Your task to perform on an android device: Open wifi settings Image 0: 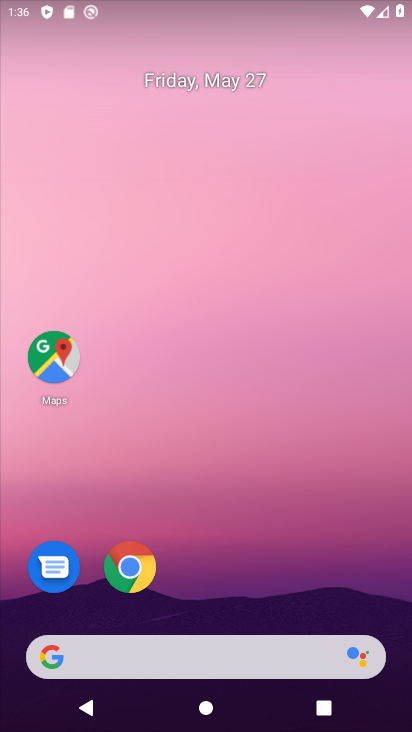
Step 0: drag from (221, 598) to (227, 104)
Your task to perform on an android device: Open wifi settings Image 1: 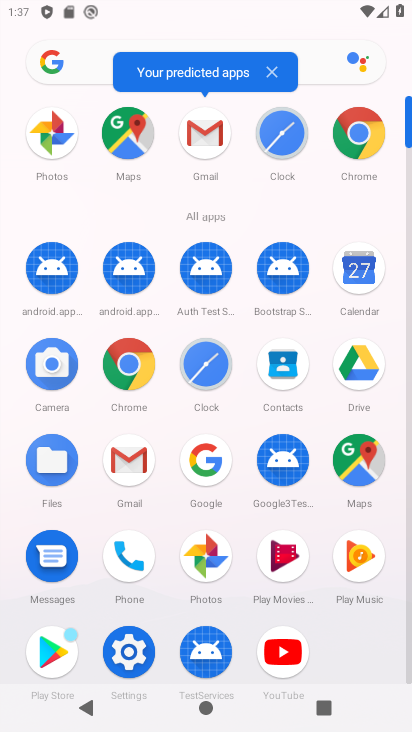
Step 1: click (134, 657)
Your task to perform on an android device: Open wifi settings Image 2: 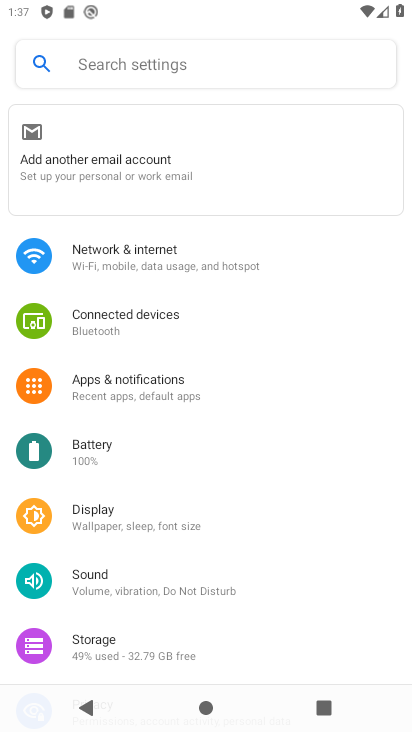
Step 2: click (77, 254)
Your task to perform on an android device: Open wifi settings Image 3: 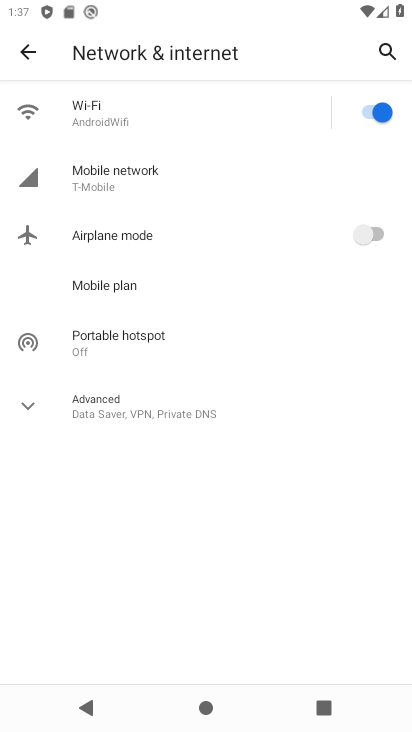
Step 3: click (79, 105)
Your task to perform on an android device: Open wifi settings Image 4: 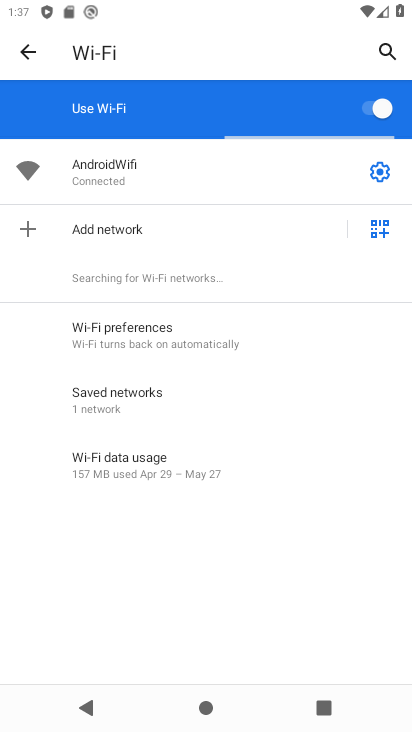
Step 4: task complete